Your task to perform on an android device: change the clock display to digital Image 0: 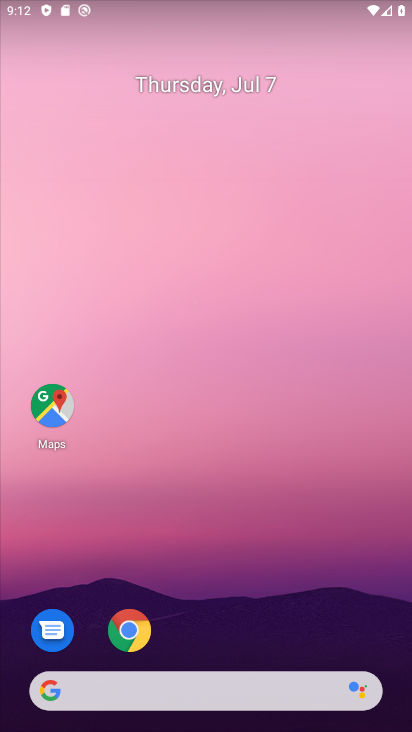
Step 0: drag from (154, 672) to (188, 358)
Your task to perform on an android device: change the clock display to digital Image 1: 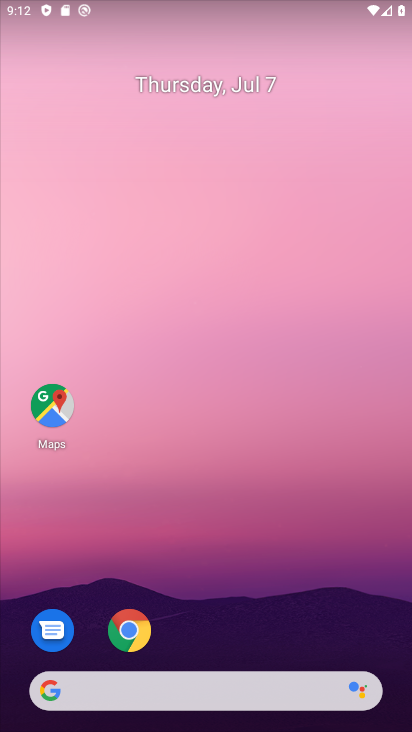
Step 1: drag from (223, 686) to (235, 295)
Your task to perform on an android device: change the clock display to digital Image 2: 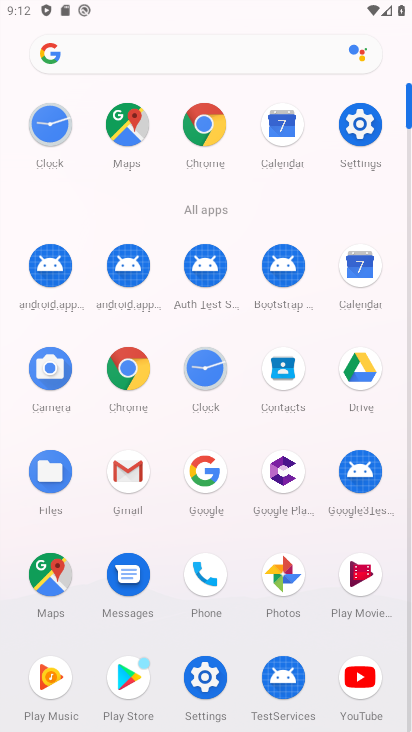
Step 2: click (198, 369)
Your task to perform on an android device: change the clock display to digital Image 3: 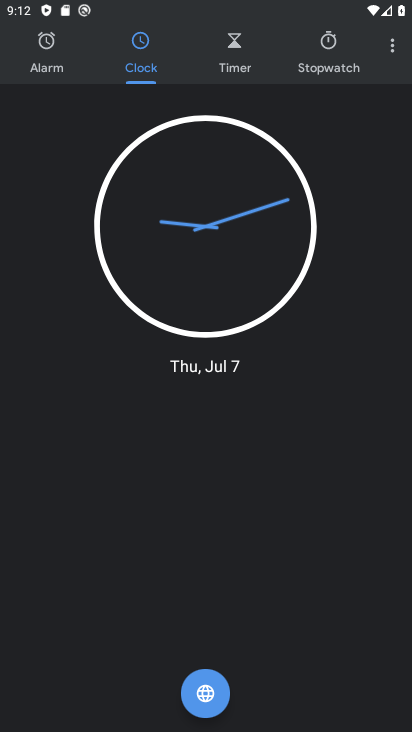
Step 3: click (389, 39)
Your task to perform on an android device: change the clock display to digital Image 4: 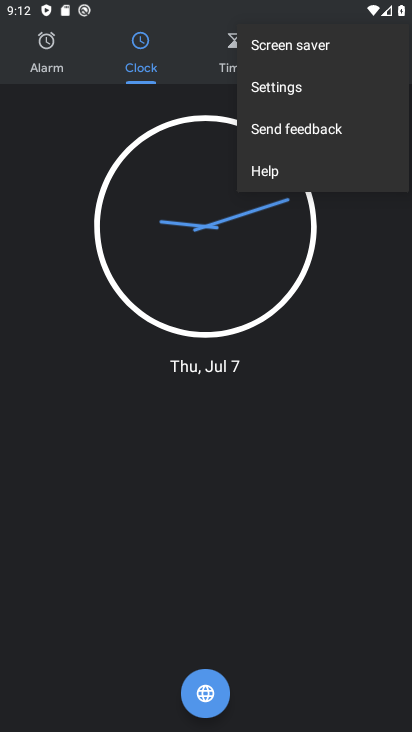
Step 4: click (271, 90)
Your task to perform on an android device: change the clock display to digital Image 5: 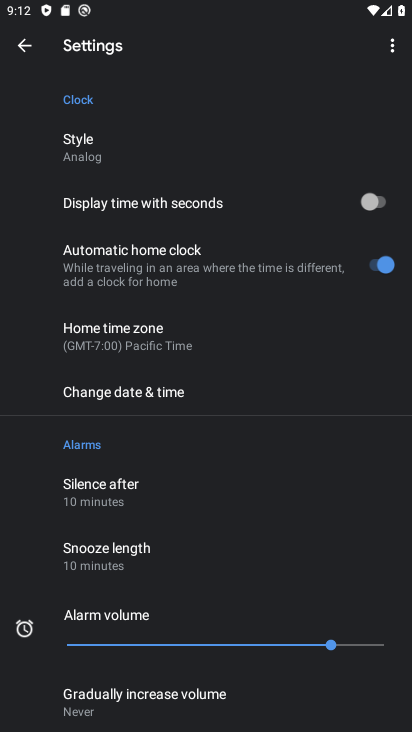
Step 5: click (95, 142)
Your task to perform on an android device: change the clock display to digital Image 6: 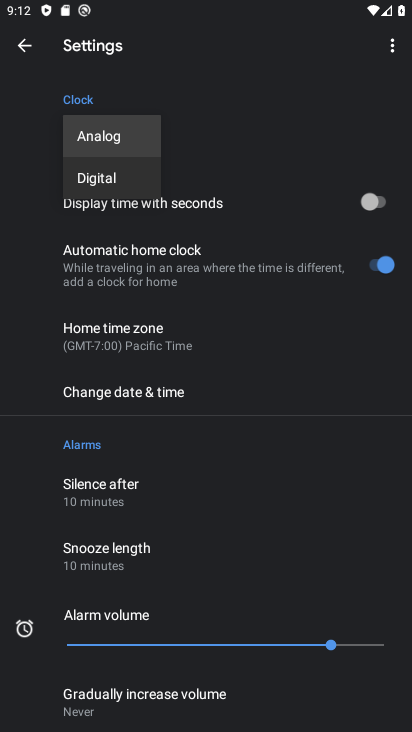
Step 6: click (97, 184)
Your task to perform on an android device: change the clock display to digital Image 7: 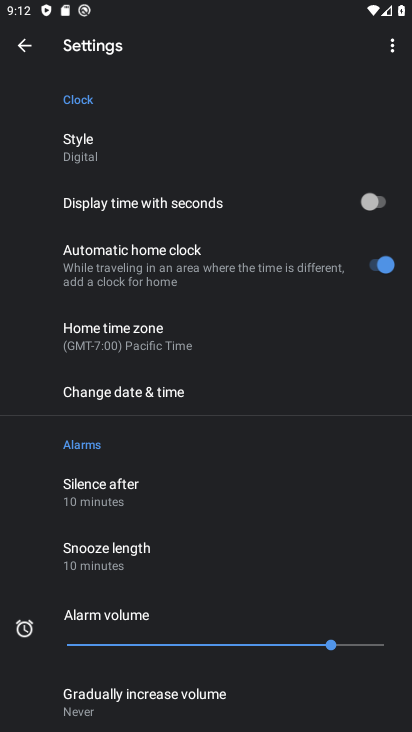
Step 7: task complete